Your task to perform on an android device: add a label to a message in the gmail app Image 0: 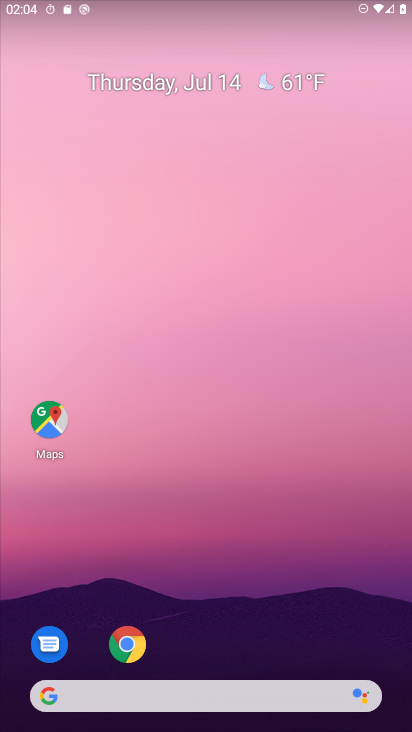
Step 0: drag from (361, 575) to (266, 109)
Your task to perform on an android device: add a label to a message in the gmail app Image 1: 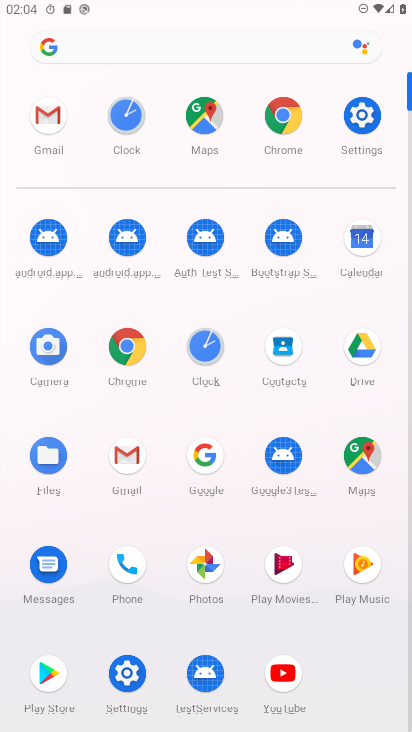
Step 1: click (132, 458)
Your task to perform on an android device: add a label to a message in the gmail app Image 2: 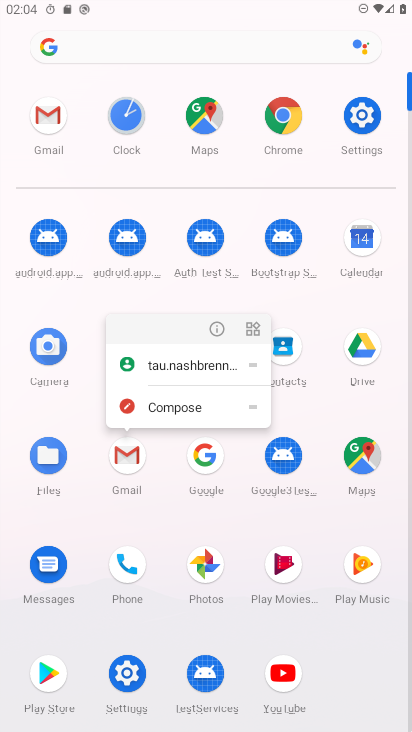
Step 2: click (132, 458)
Your task to perform on an android device: add a label to a message in the gmail app Image 3: 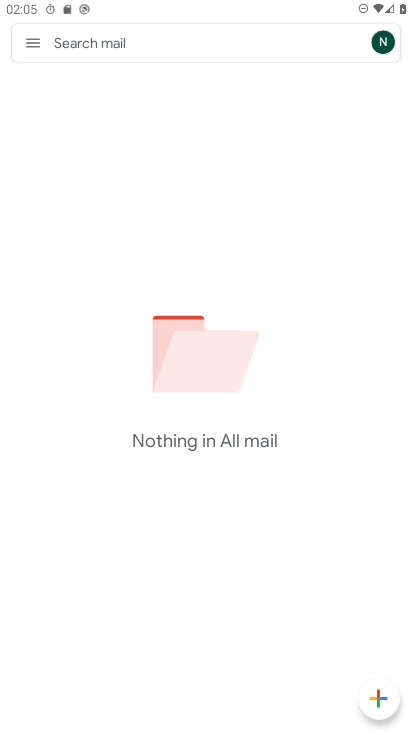
Step 3: task complete